Your task to perform on an android device: Set the phone to "Do not disturb". Image 0: 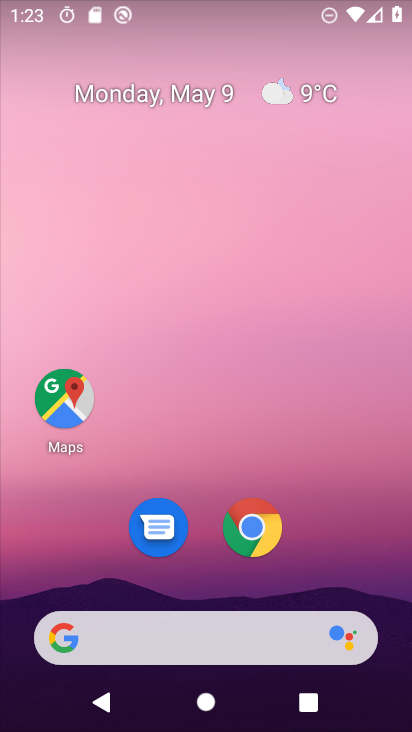
Step 0: drag from (199, 4) to (178, 563)
Your task to perform on an android device: Set the phone to "Do not disturb". Image 1: 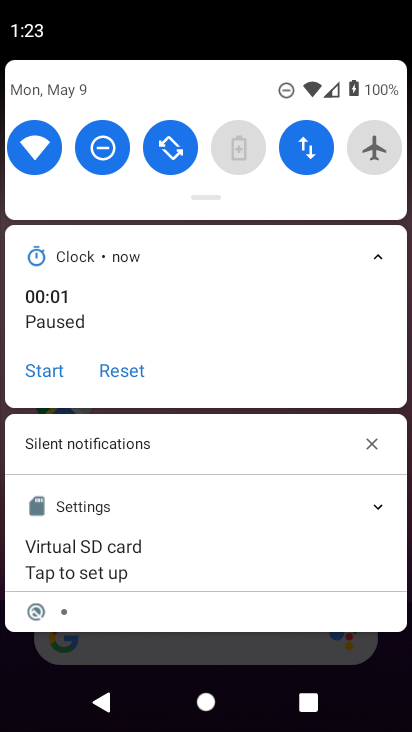
Step 1: task complete